Your task to perform on an android device: turn off notifications in google photos Image 0: 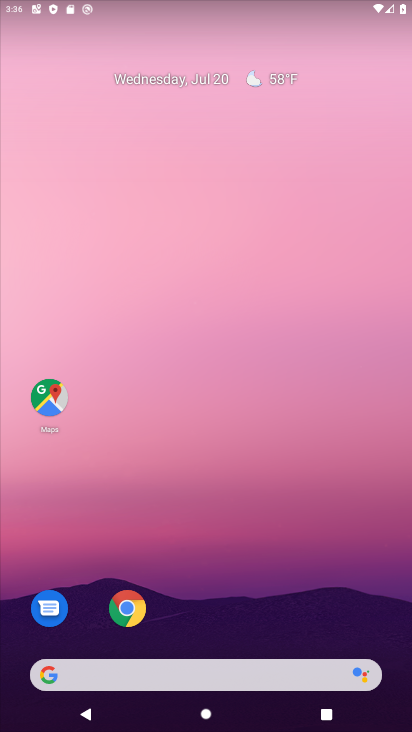
Step 0: drag from (256, 607) to (296, 0)
Your task to perform on an android device: turn off notifications in google photos Image 1: 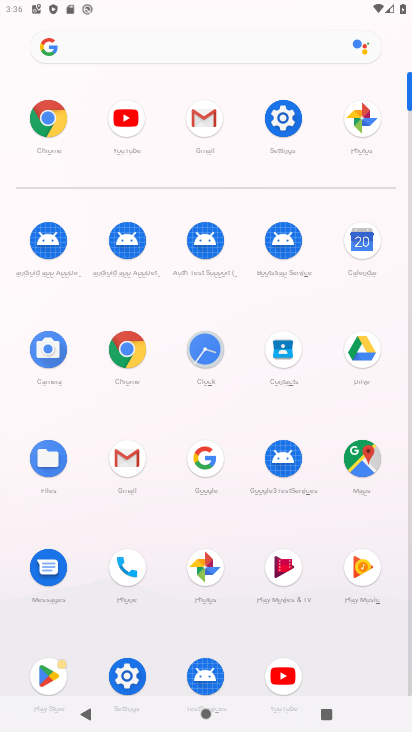
Step 1: click (348, 130)
Your task to perform on an android device: turn off notifications in google photos Image 2: 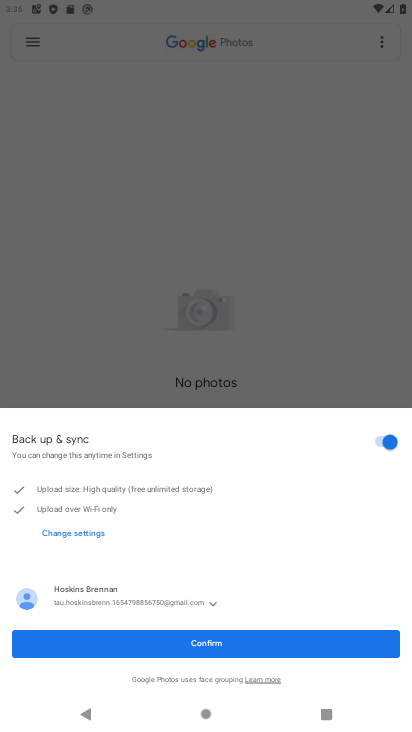
Step 2: click (160, 656)
Your task to perform on an android device: turn off notifications in google photos Image 3: 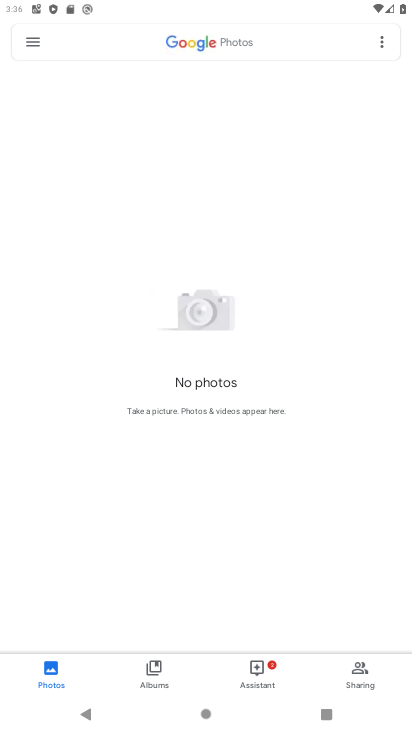
Step 3: task complete